Your task to perform on an android device: turn on location history Image 0: 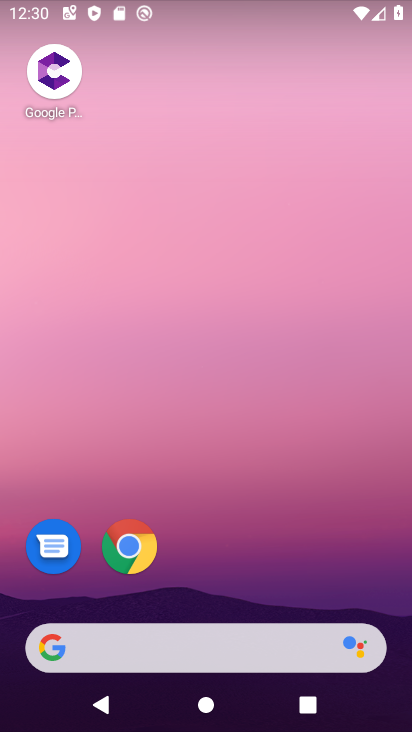
Step 0: drag from (255, 490) to (265, 99)
Your task to perform on an android device: turn on location history Image 1: 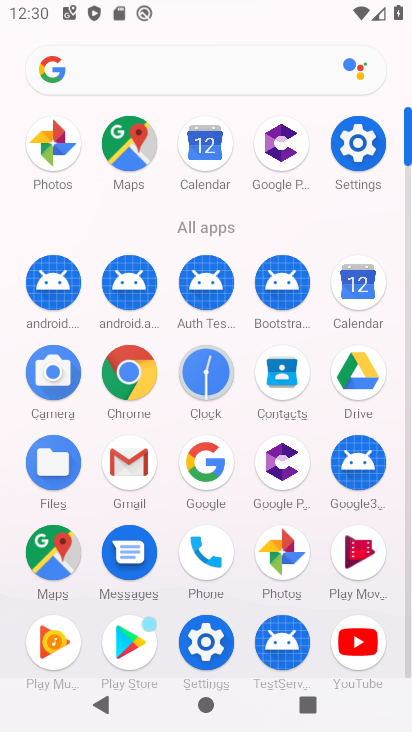
Step 1: click (352, 146)
Your task to perform on an android device: turn on location history Image 2: 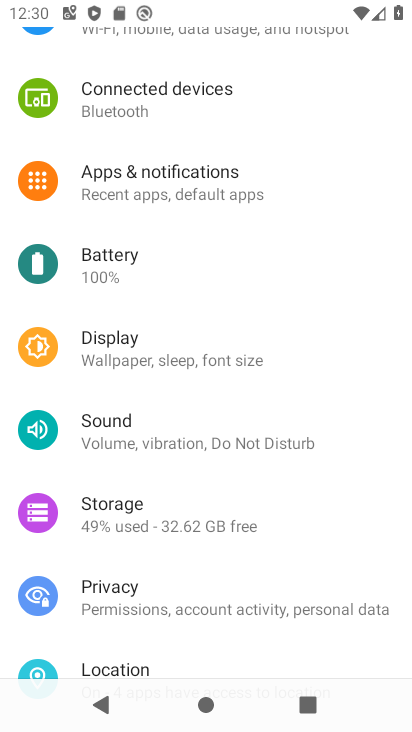
Step 2: click (147, 666)
Your task to perform on an android device: turn on location history Image 3: 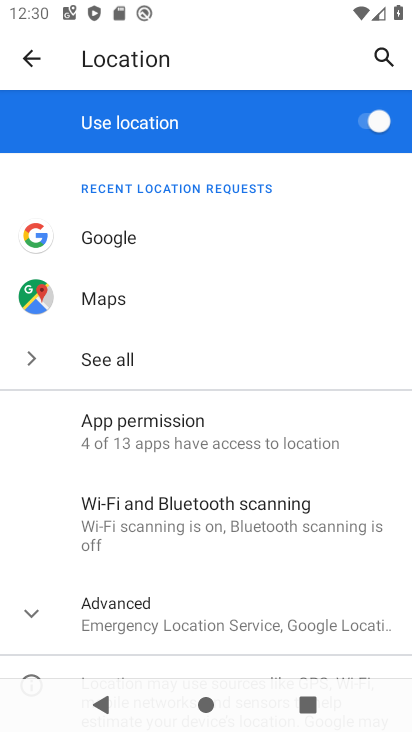
Step 3: click (32, 621)
Your task to perform on an android device: turn on location history Image 4: 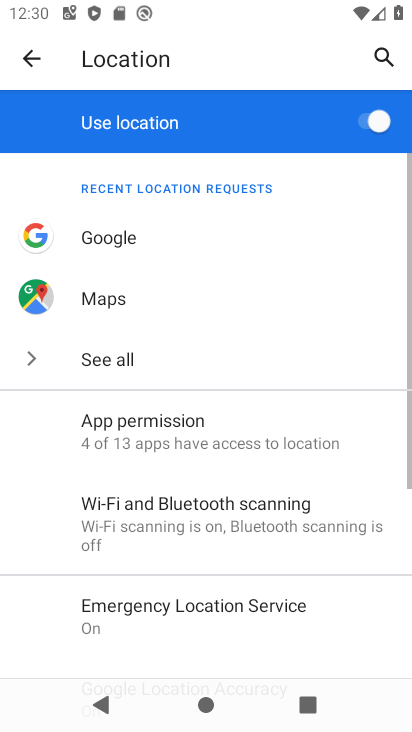
Step 4: drag from (147, 584) to (235, 201)
Your task to perform on an android device: turn on location history Image 5: 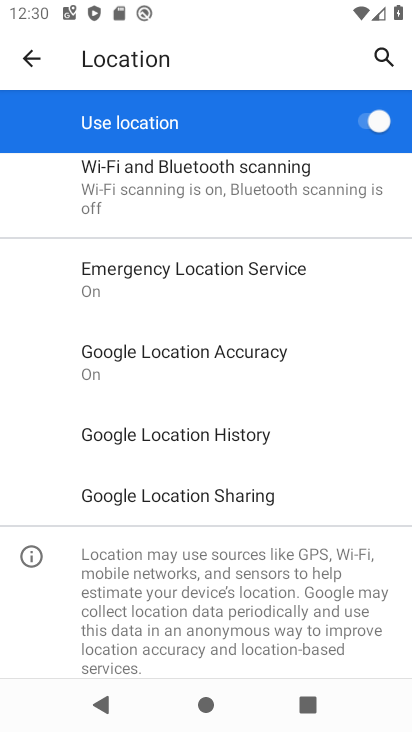
Step 5: click (217, 438)
Your task to perform on an android device: turn on location history Image 6: 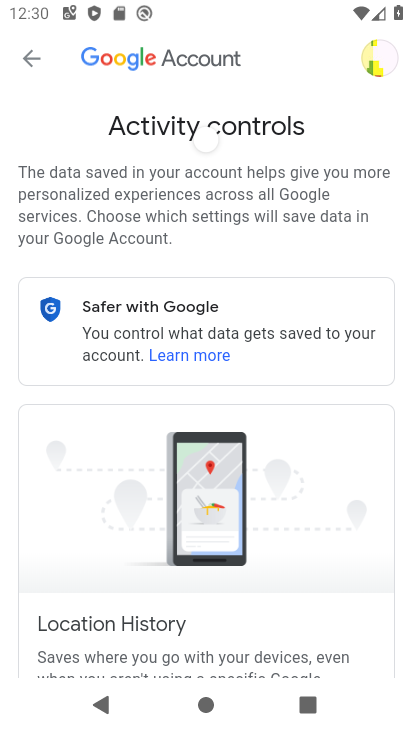
Step 6: task complete